Your task to perform on an android device: Search for the best gaming monitor on Best Buy Image 0: 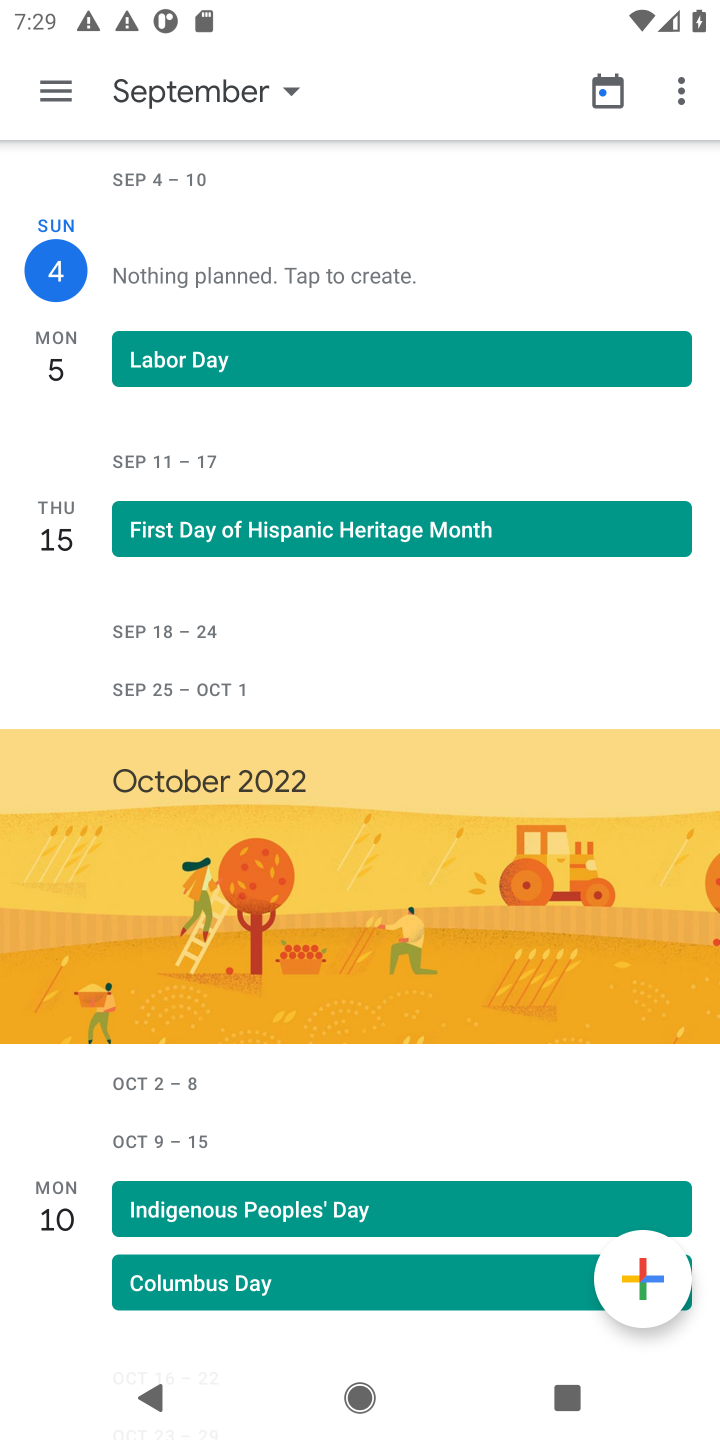
Step 0: press home button
Your task to perform on an android device: Search for the best gaming monitor on Best Buy Image 1: 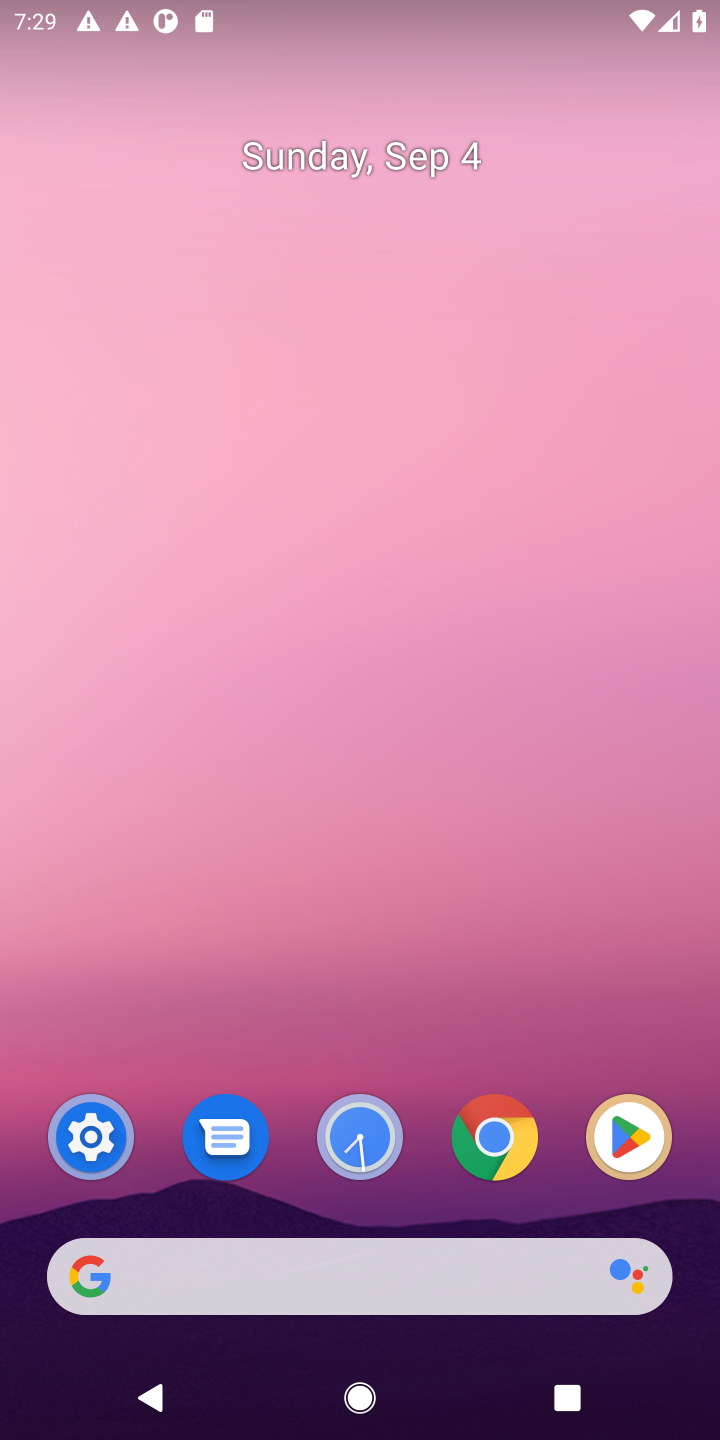
Step 1: click (500, 1138)
Your task to perform on an android device: Search for the best gaming monitor on Best Buy Image 2: 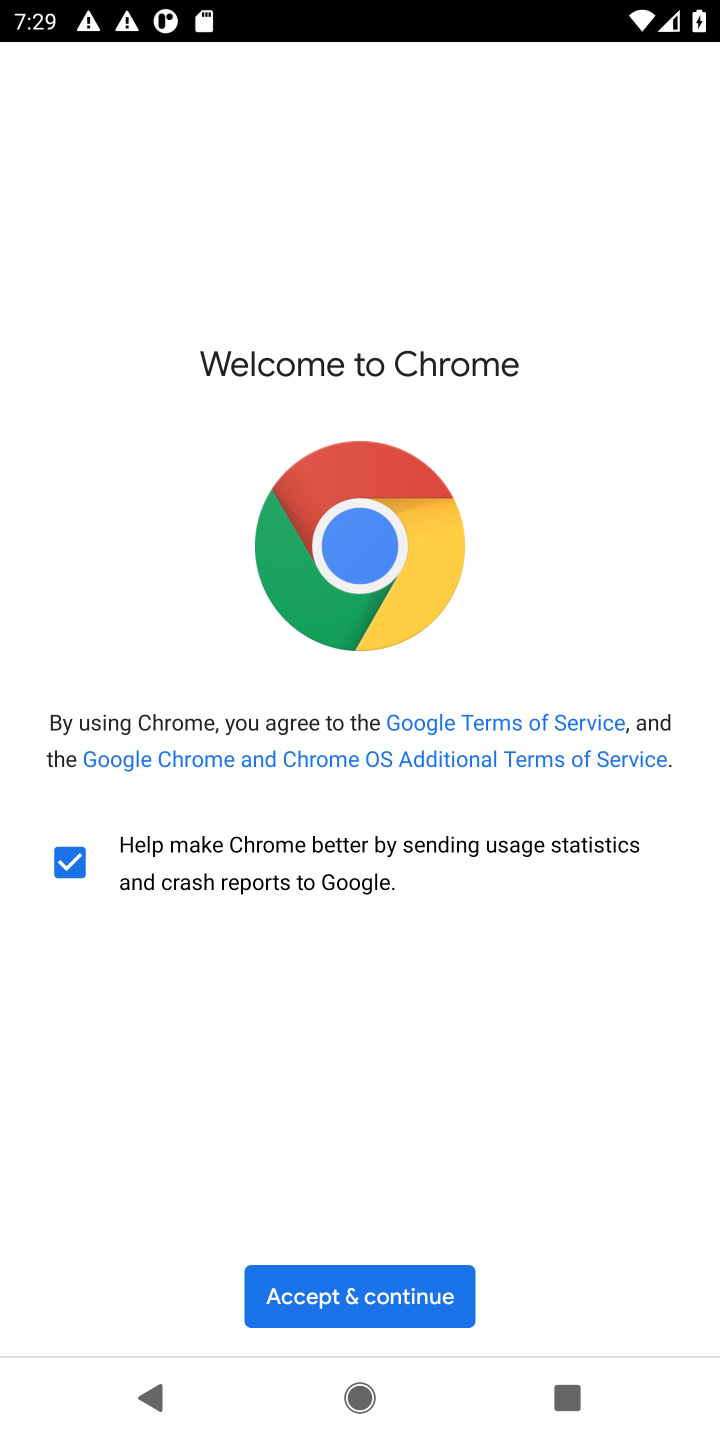
Step 2: click (359, 1302)
Your task to perform on an android device: Search for the best gaming monitor on Best Buy Image 3: 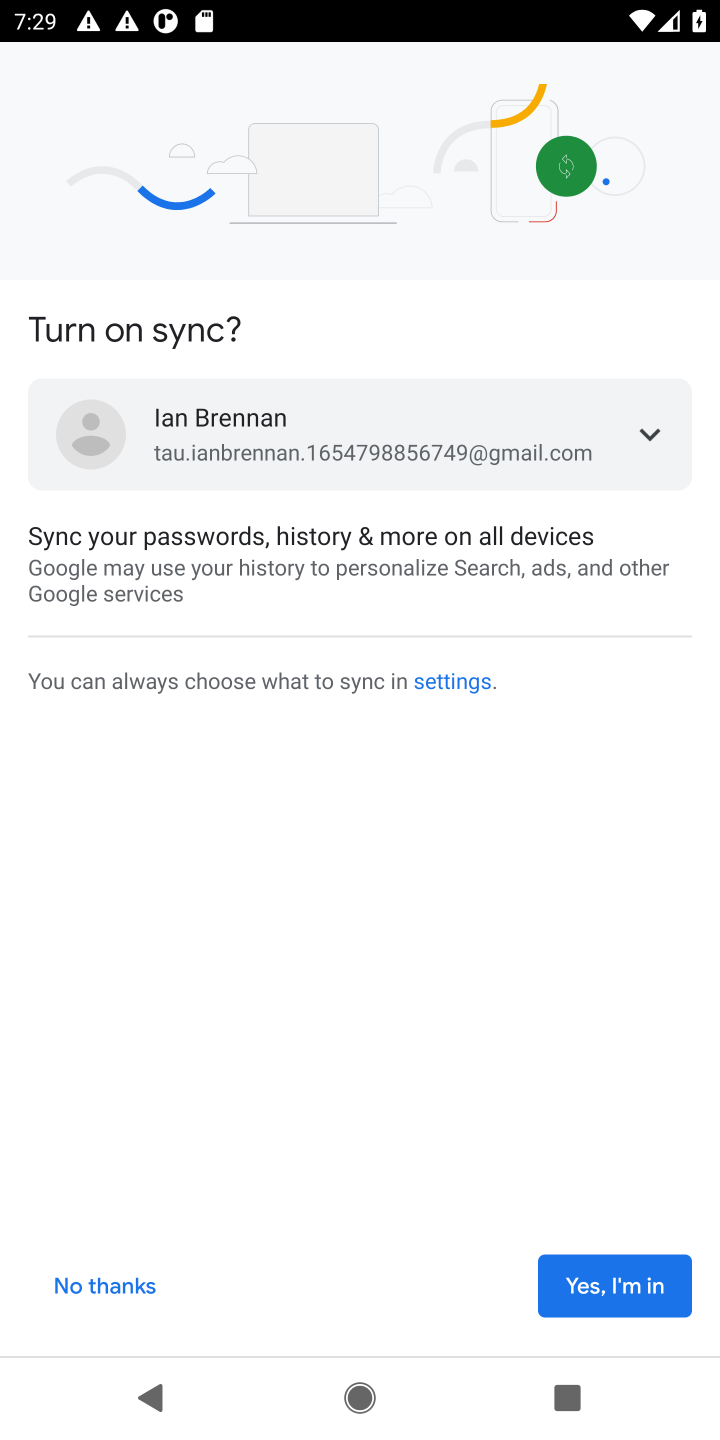
Step 3: click (610, 1290)
Your task to perform on an android device: Search for the best gaming monitor on Best Buy Image 4: 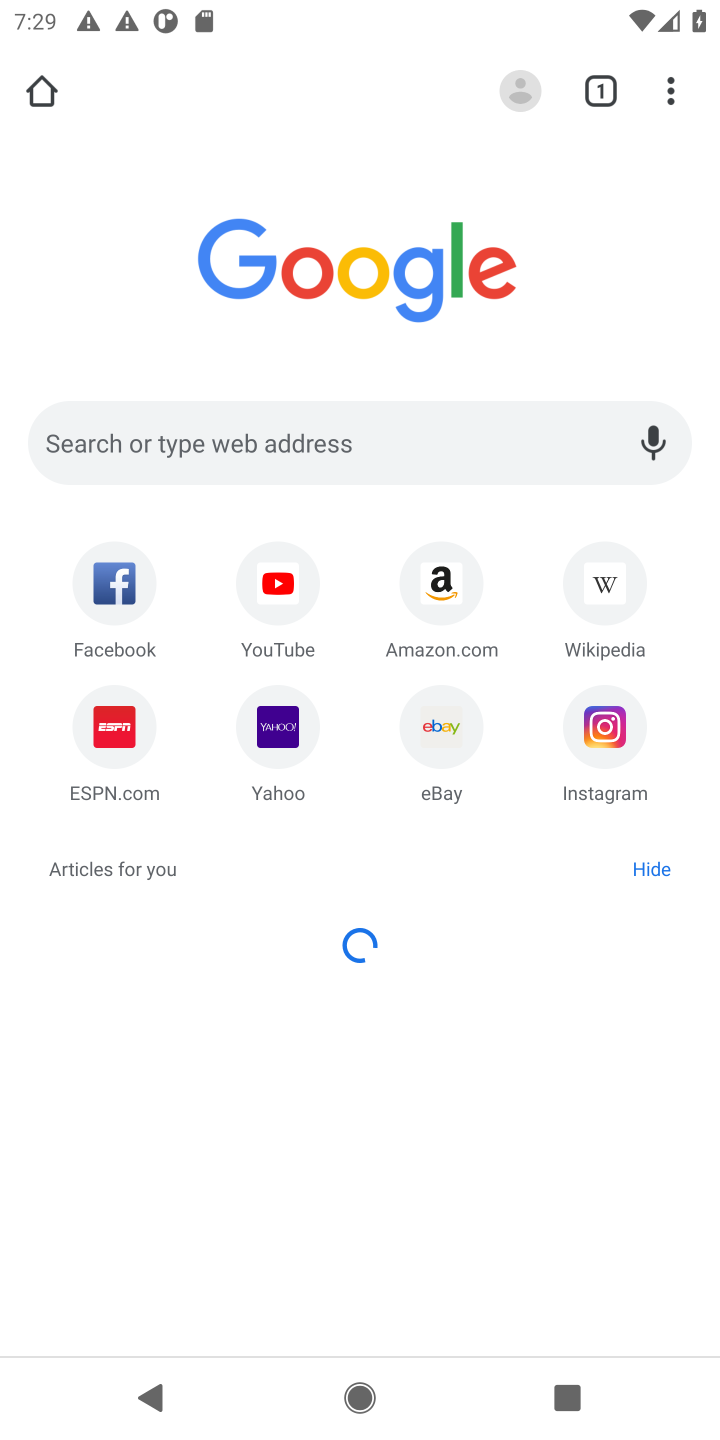
Step 4: click (317, 447)
Your task to perform on an android device: Search for the best gaming monitor on Best Buy Image 5: 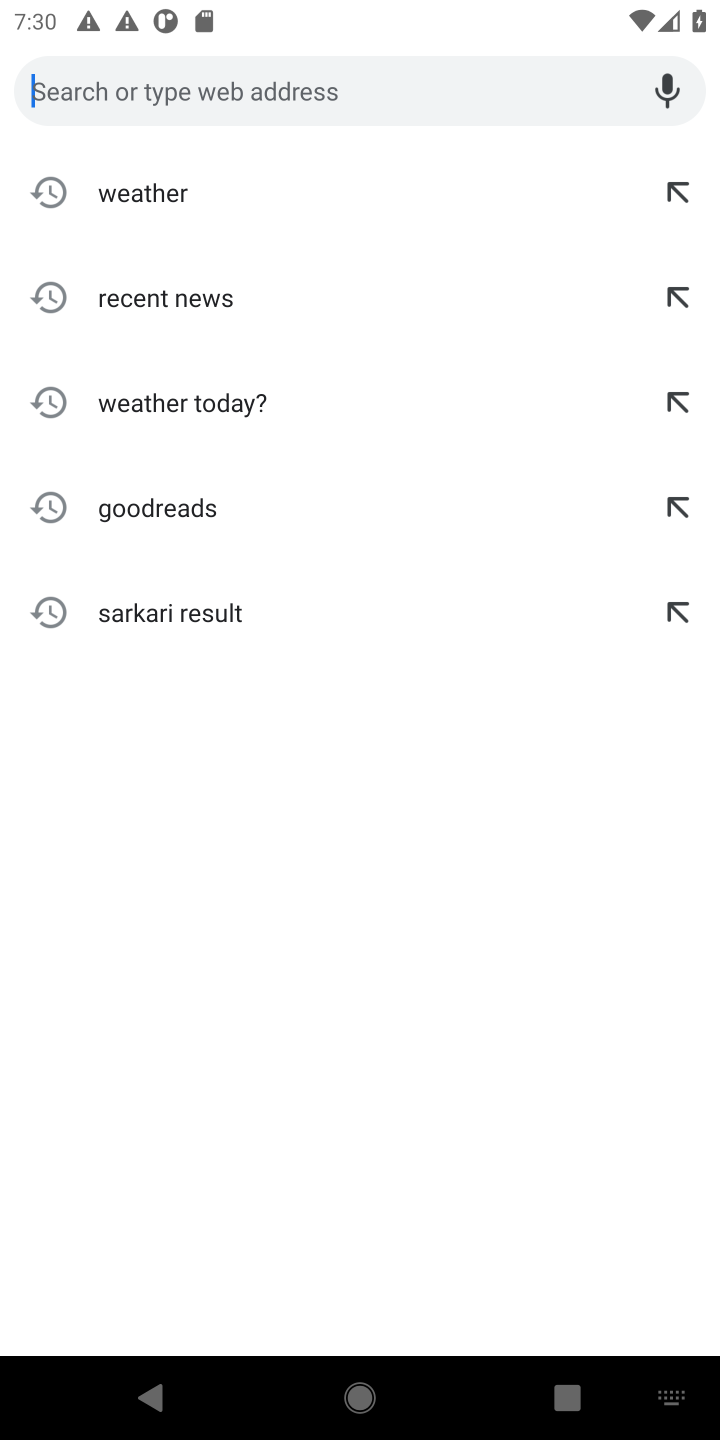
Step 5: type "Best Buy"
Your task to perform on an android device: Search for the best gaming monitor on Best Buy Image 6: 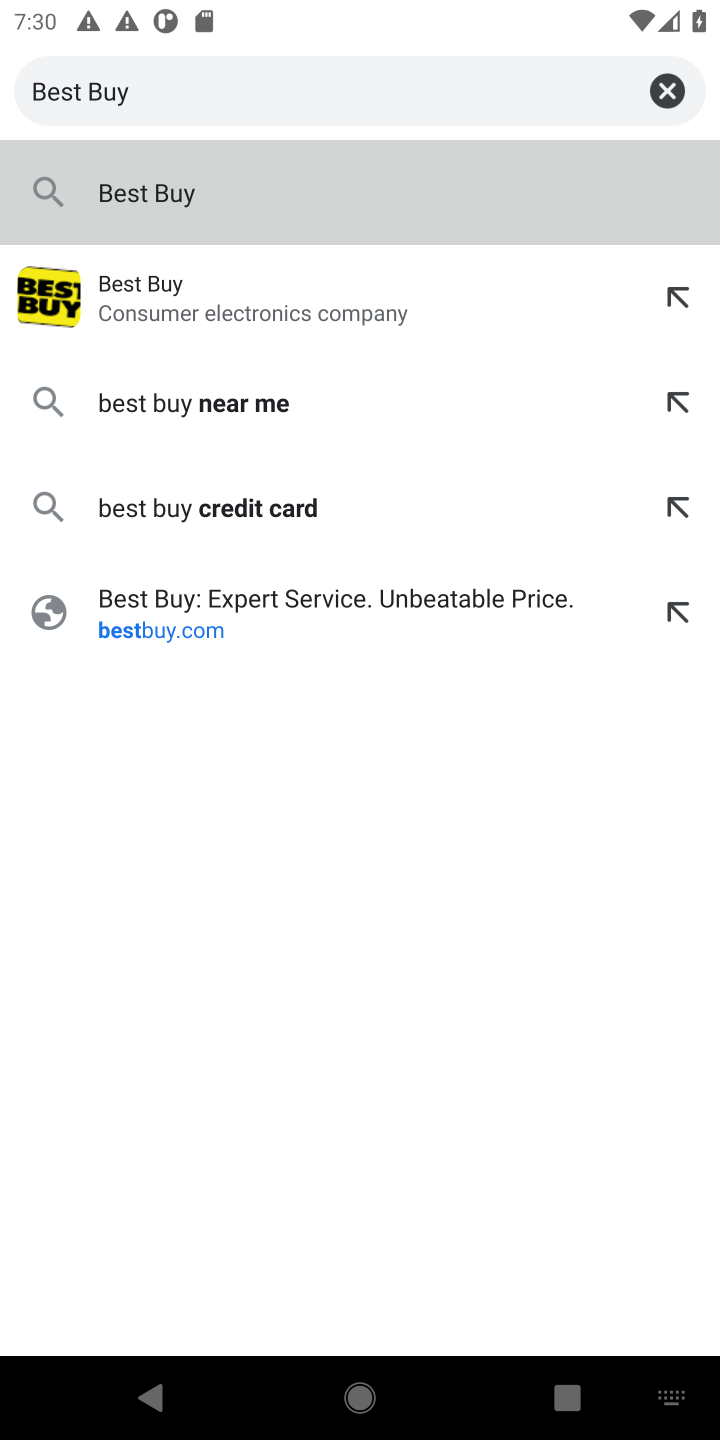
Step 6: click (139, 195)
Your task to perform on an android device: Search for the best gaming monitor on Best Buy Image 7: 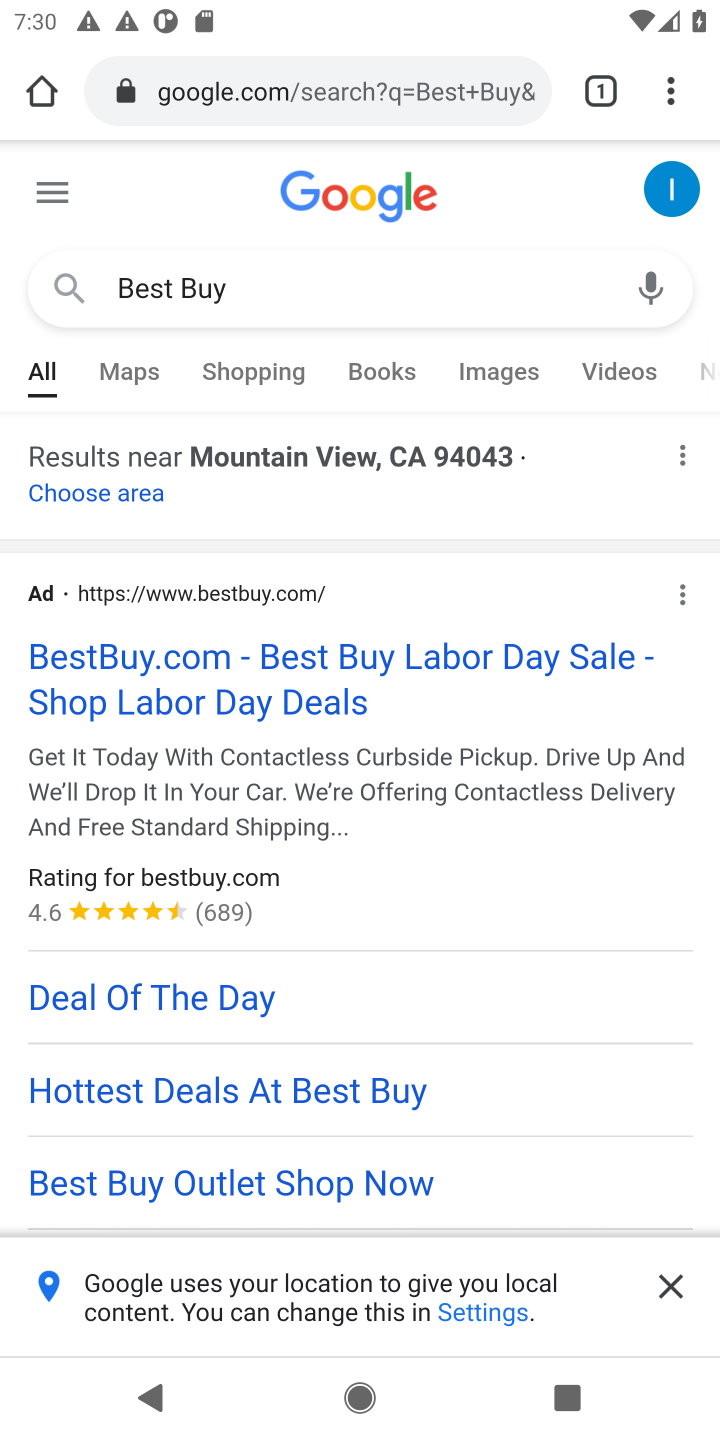
Step 7: click (231, 662)
Your task to perform on an android device: Search for the best gaming monitor on Best Buy Image 8: 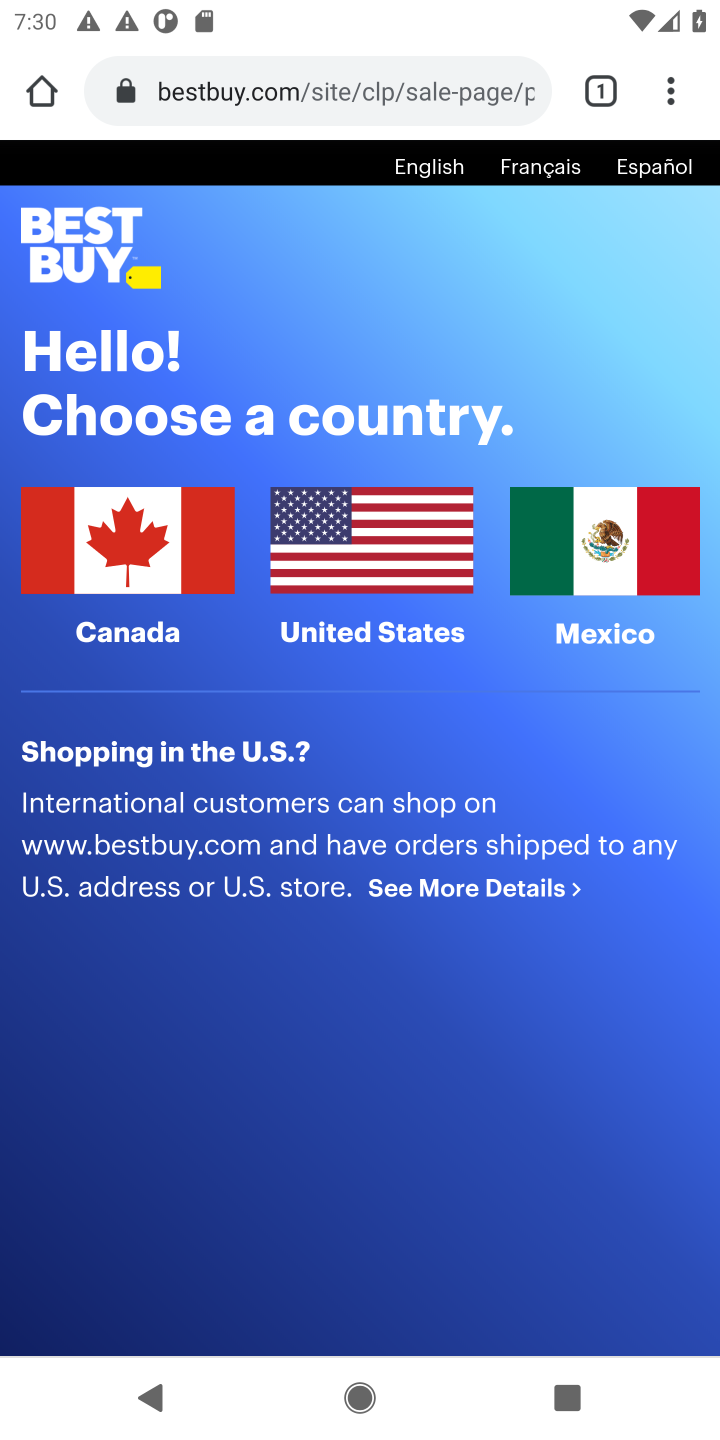
Step 8: click (368, 592)
Your task to perform on an android device: Search for the best gaming monitor on Best Buy Image 9: 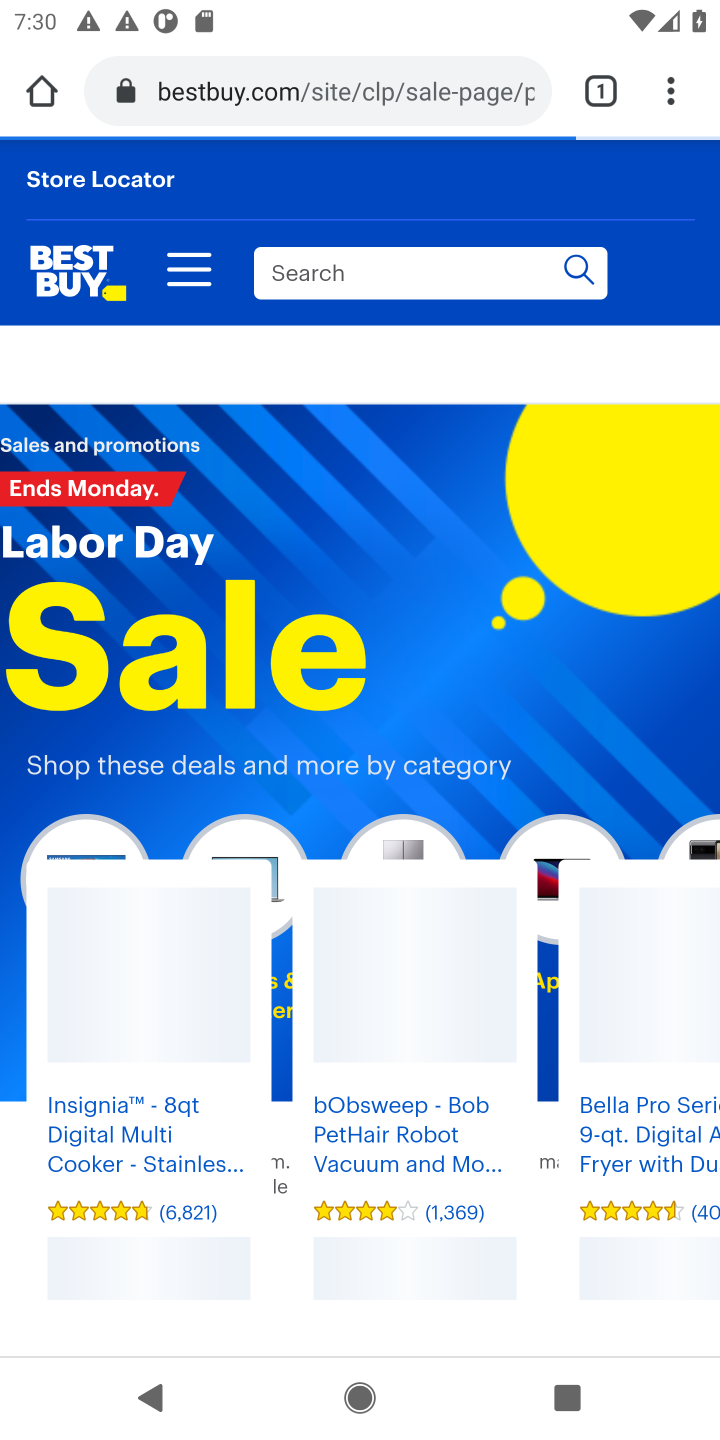
Step 9: click (367, 274)
Your task to perform on an android device: Search for the best gaming monitor on Best Buy Image 10: 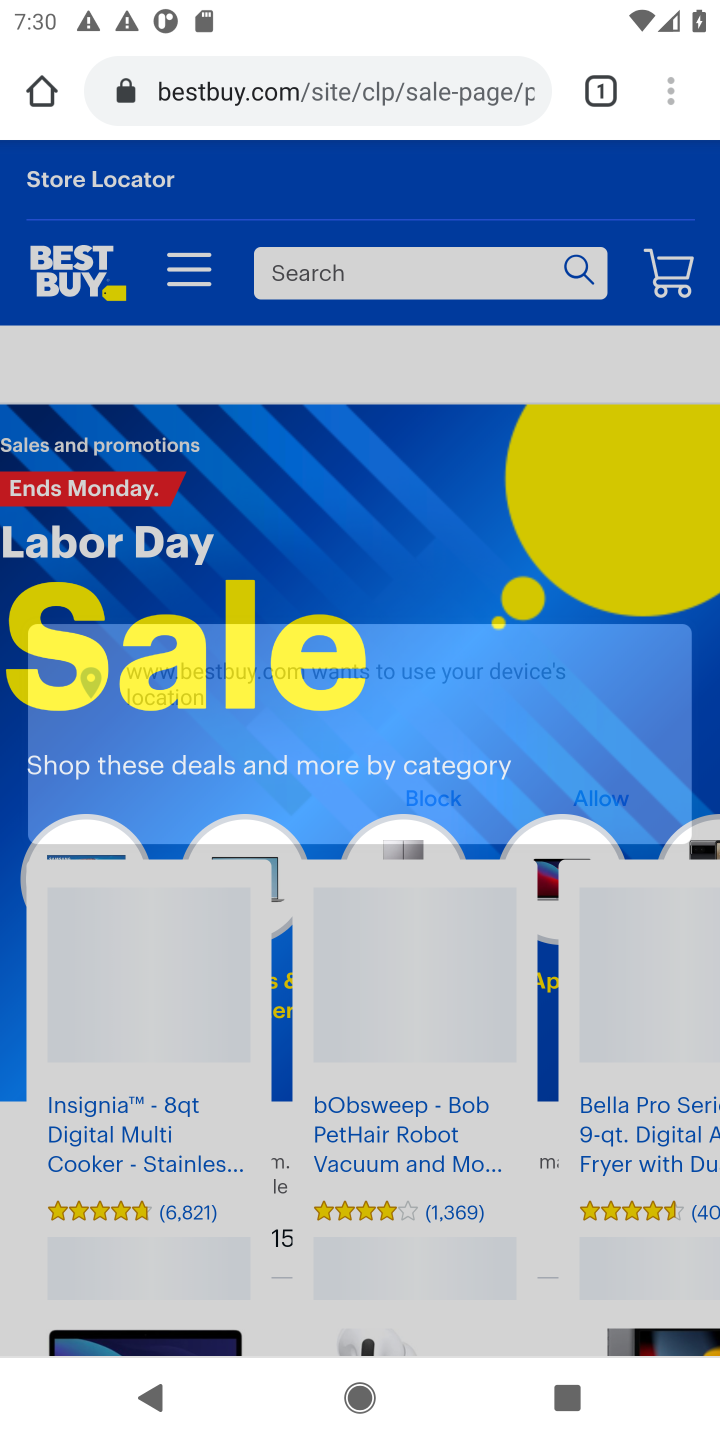
Step 10: click (365, 272)
Your task to perform on an android device: Search for the best gaming monitor on Best Buy Image 11: 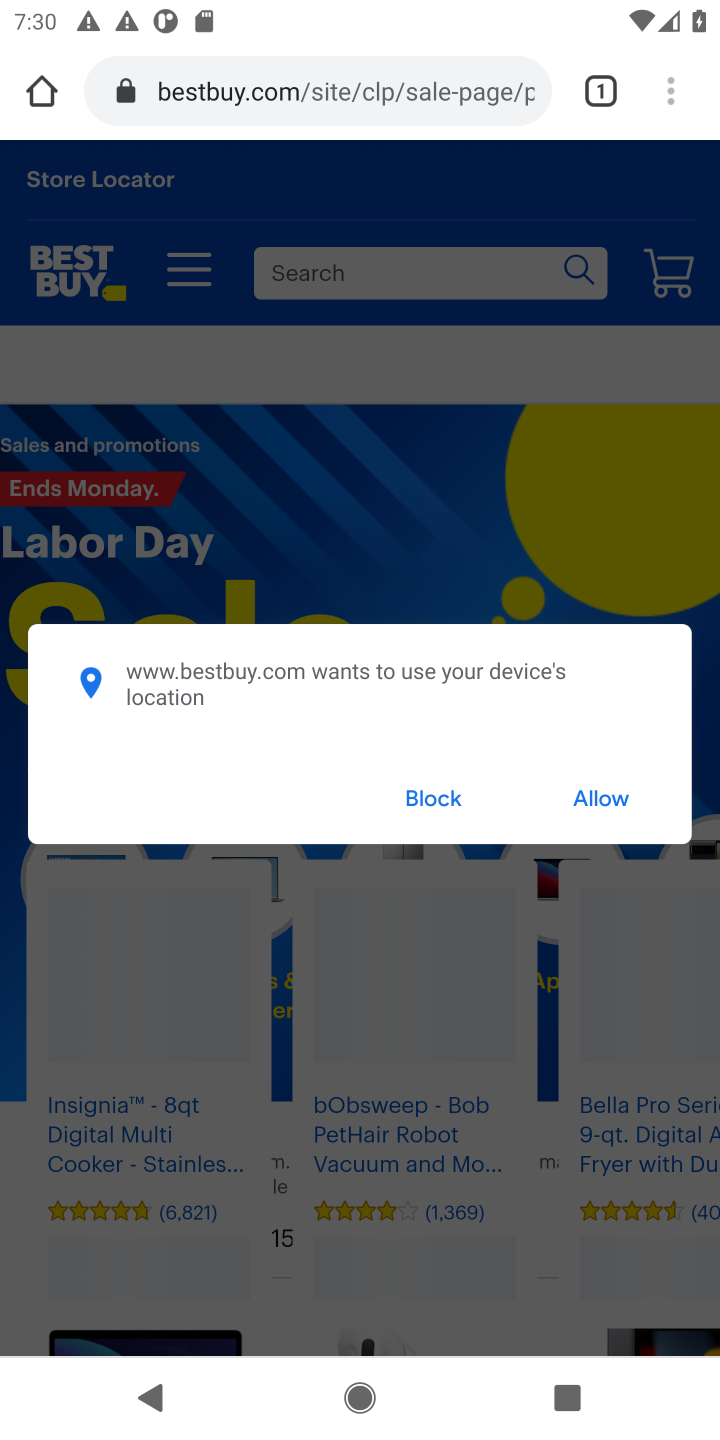
Step 11: click (630, 796)
Your task to perform on an android device: Search for the best gaming monitor on Best Buy Image 12: 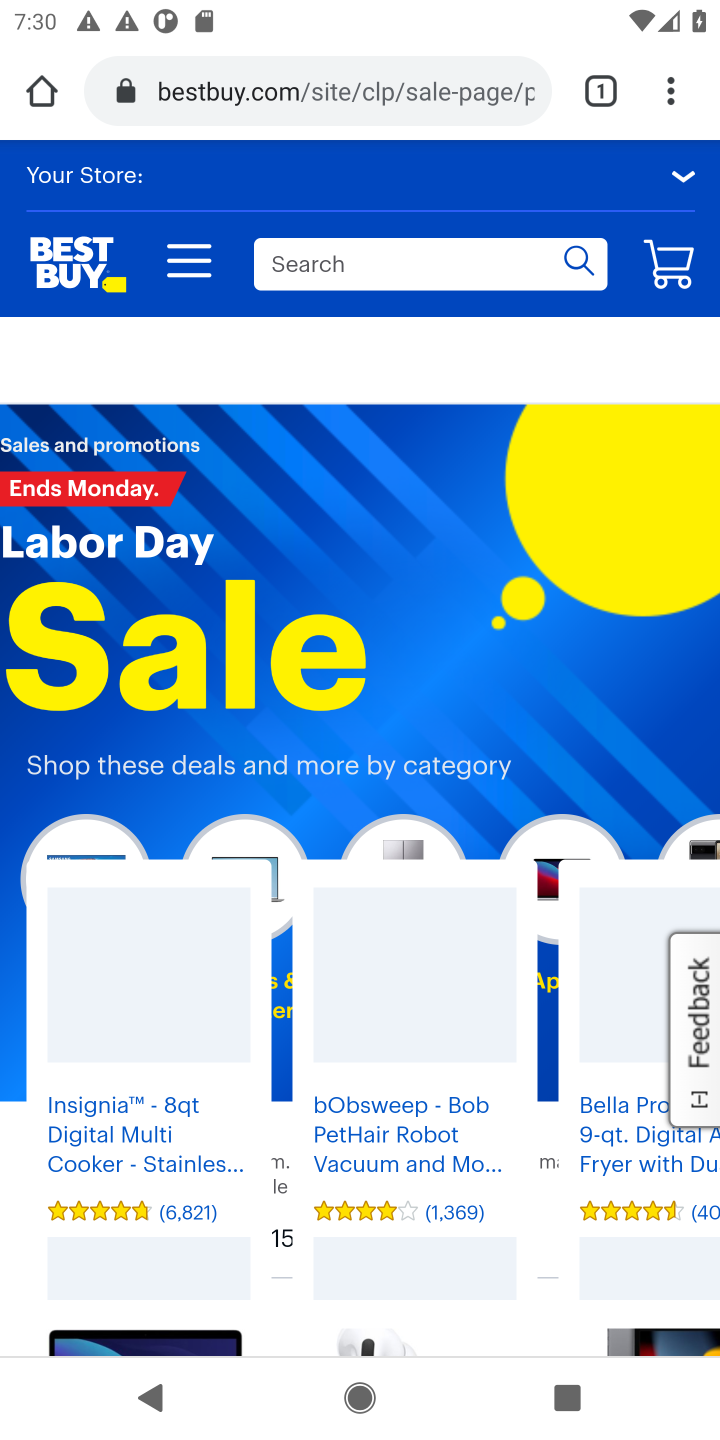
Step 12: click (369, 271)
Your task to perform on an android device: Search for the best gaming monitor on Best Buy Image 13: 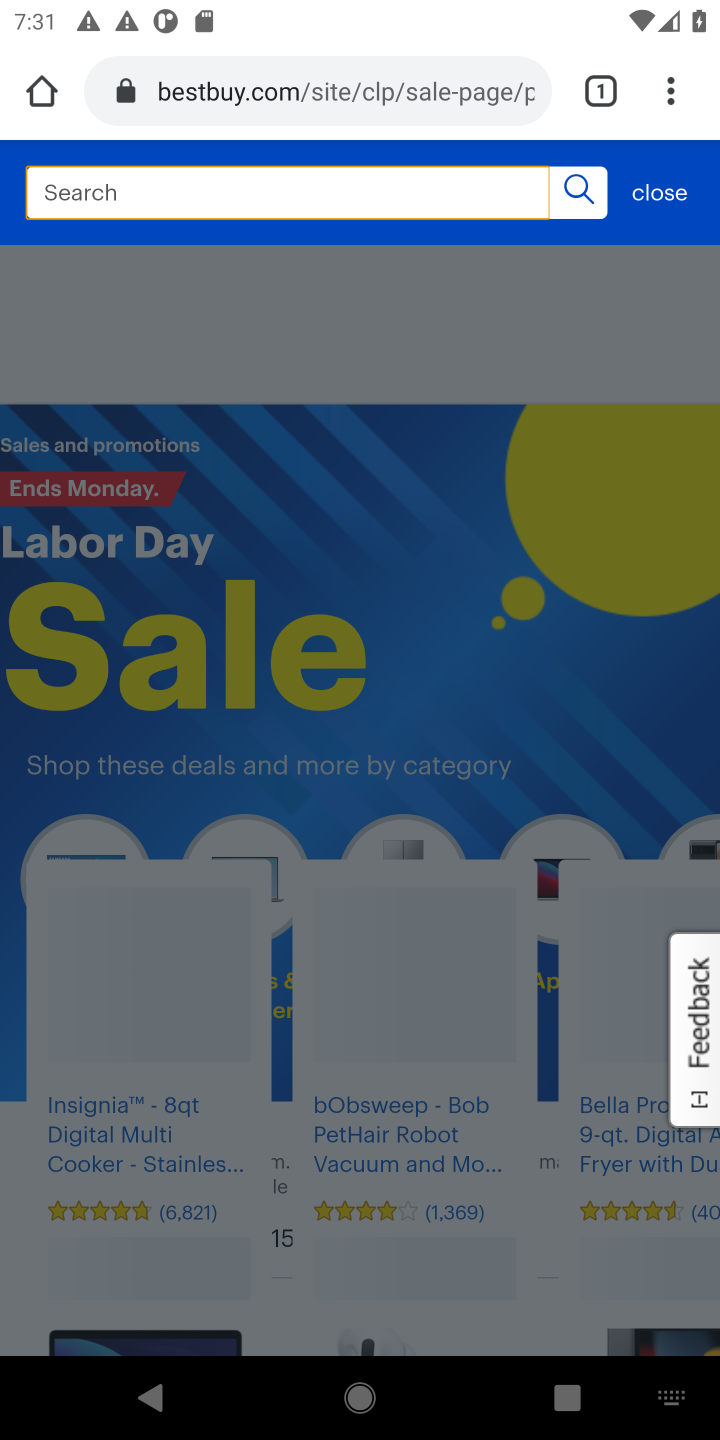
Step 13: type "best gaming monitor"
Your task to perform on an android device: Search for the best gaming monitor on Best Buy Image 14: 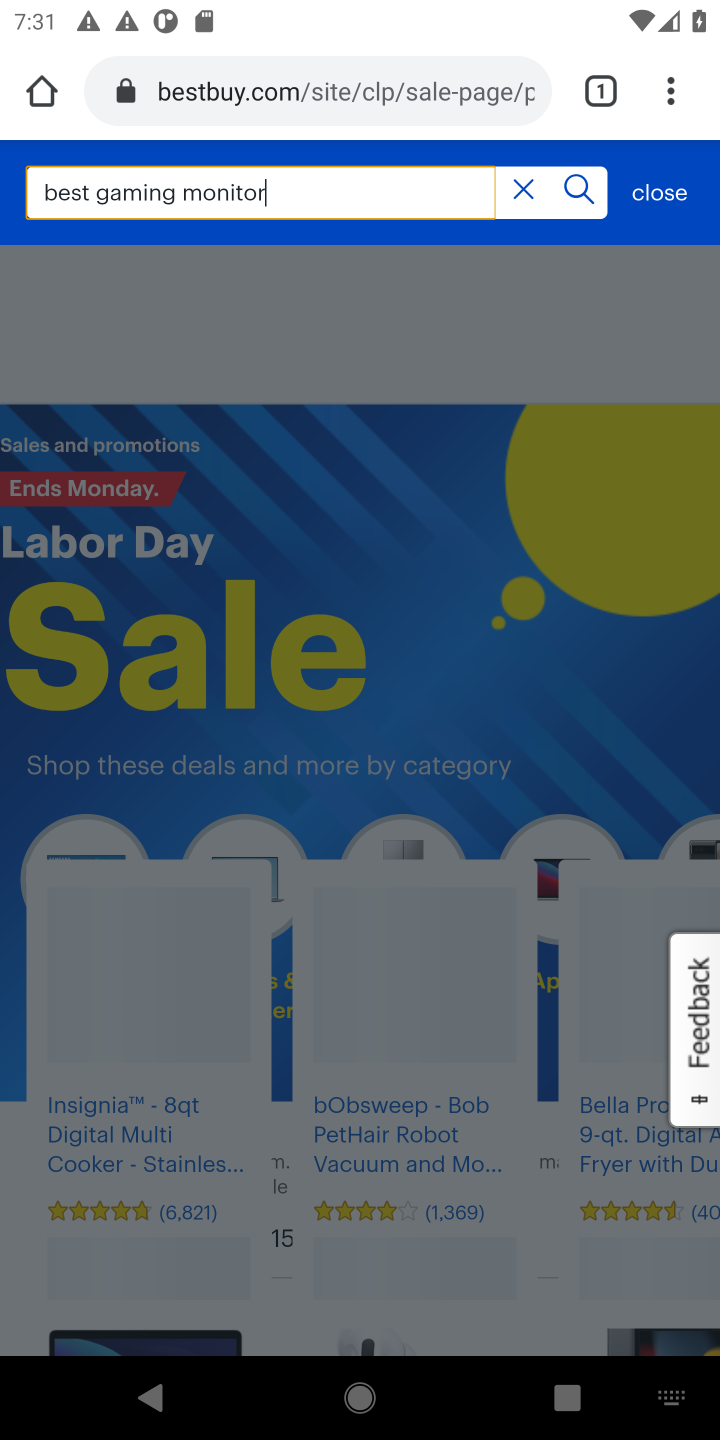
Step 14: type ""
Your task to perform on an android device: Search for the best gaming monitor on Best Buy Image 15: 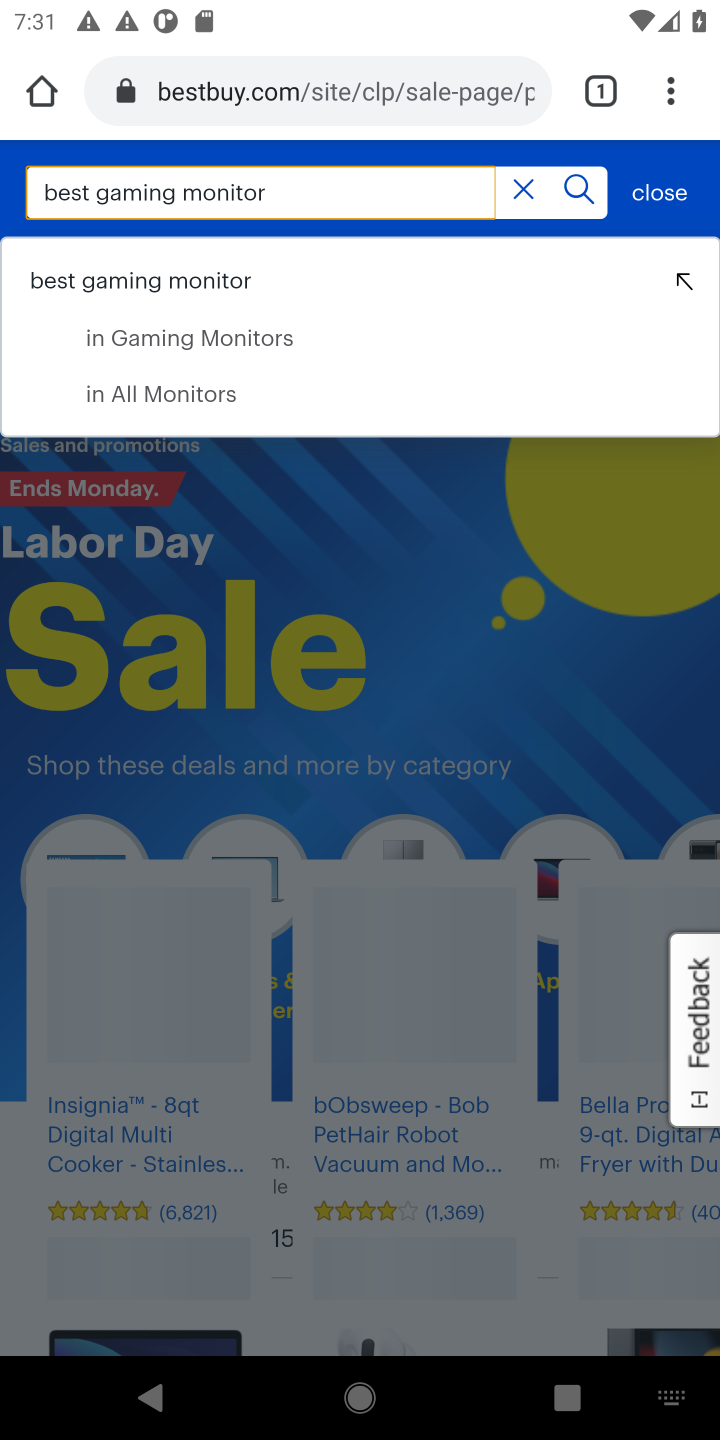
Step 15: click (569, 188)
Your task to perform on an android device: Search for the best gaming monitor on Best Buy Image 16: 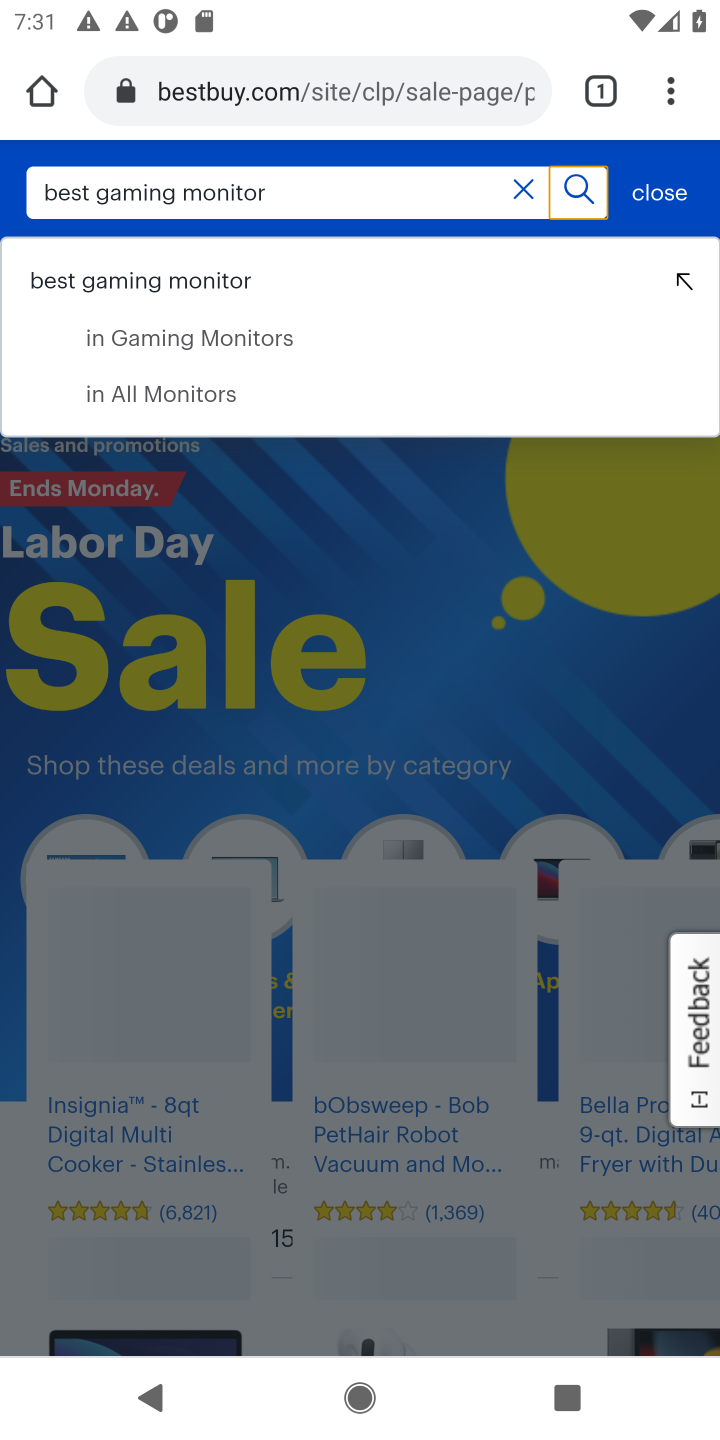
Step 16: click (577, 182)
Your task to perform on an android device: Search for the best gaming monitor on Best Buy Image 17: 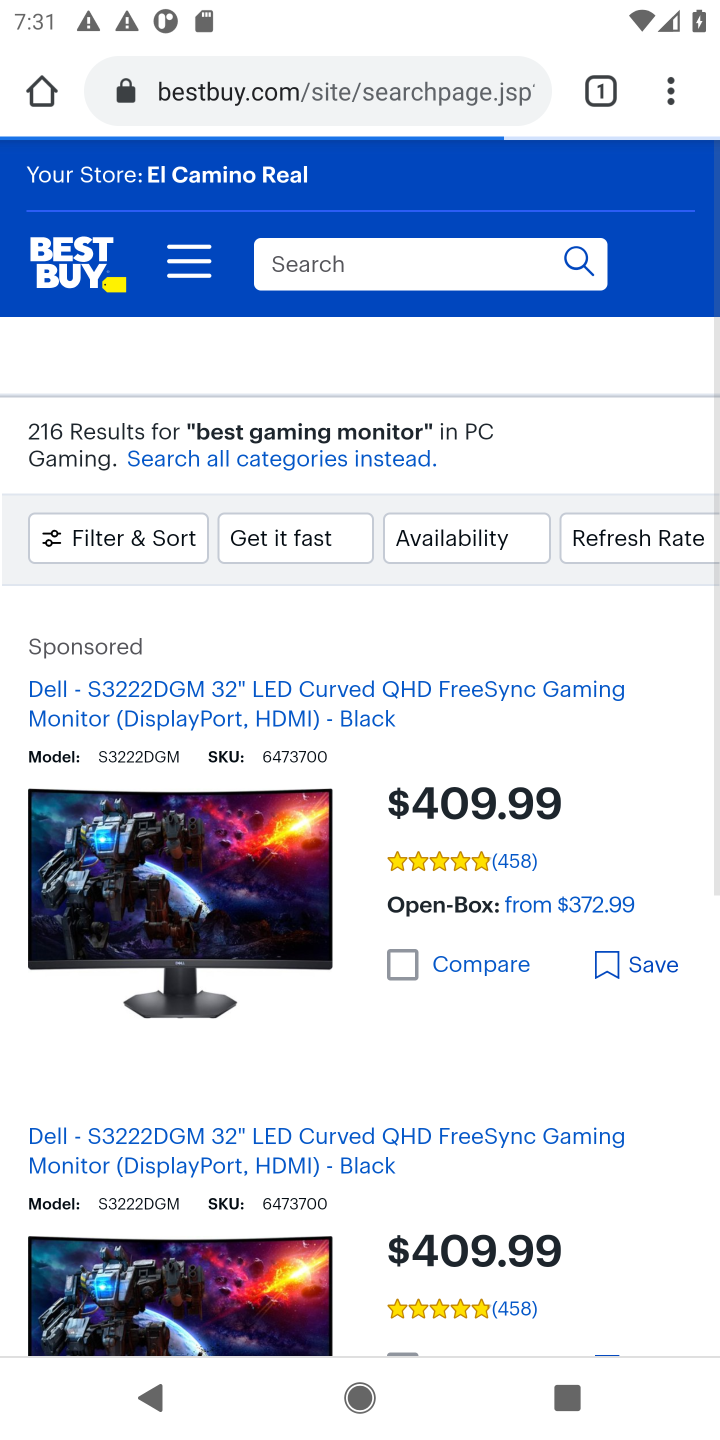
Step 17: click (172, 349)
Your task to perform on an android device: Search for the best gaming monitor on Best Buy Image 18: 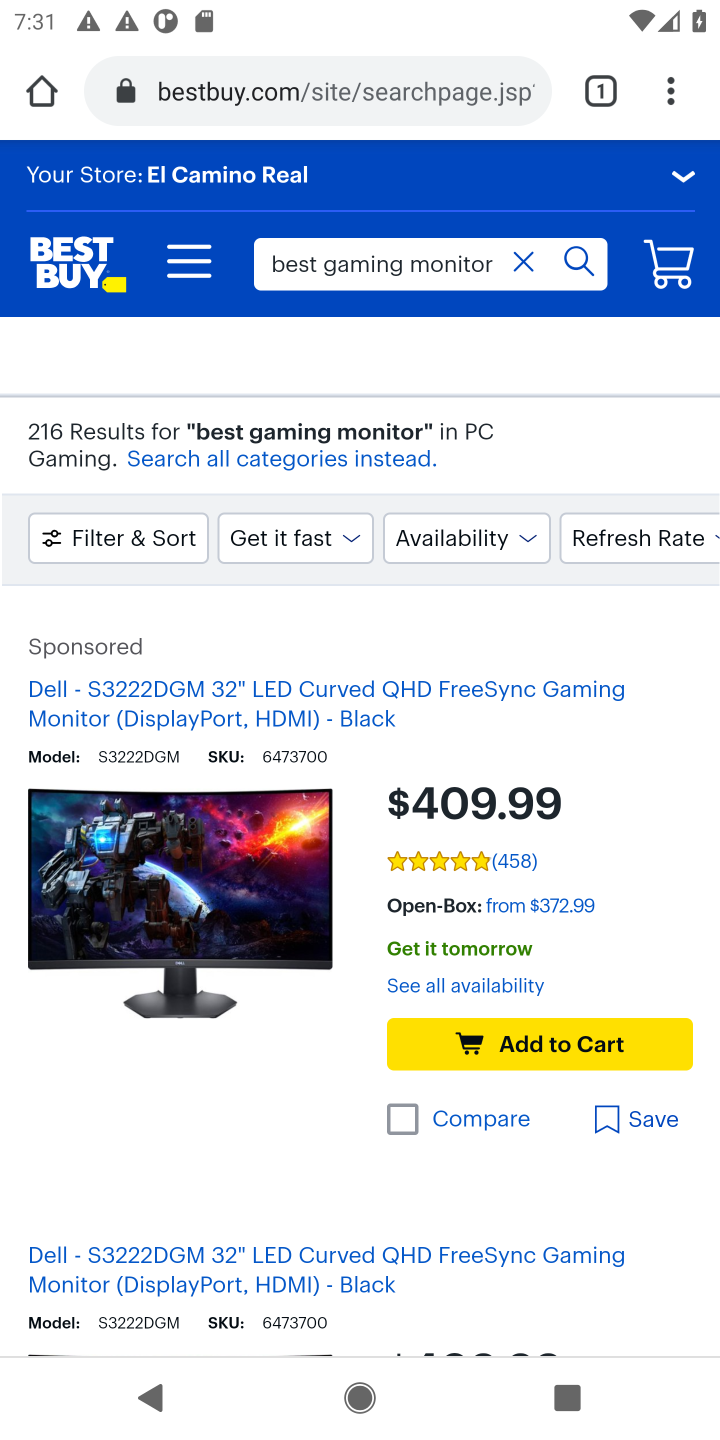
Step 18: task complete